Your task to perform on an android device: turn on the 12-hour format for clock Image 0: 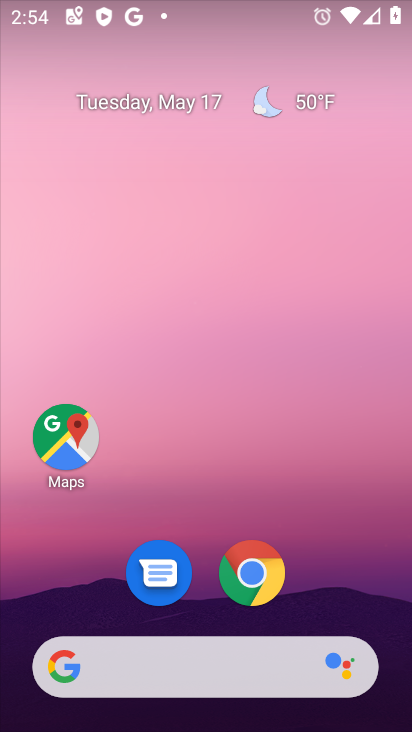
Step 0: drag from (309, 576) to (325, 231)
Your task to perform on an android device: turn on the 12-hour format for clock Image 1: 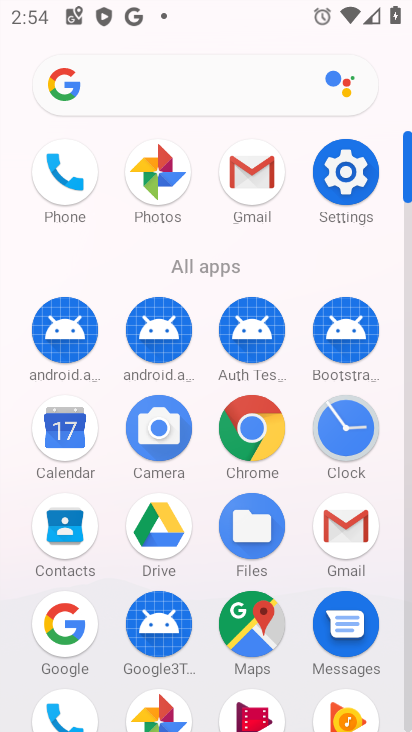
Step 1: click (338, 426)
Your task to perform on an android device: turn on the 12-hour format for clock Image 2: 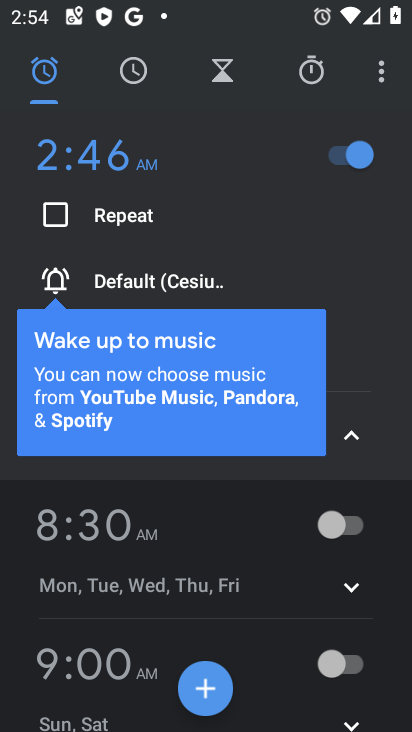
Step 2: click (387, 76)
Your task to perform on an android device: turn on the 12-hour format for clock Image 3: 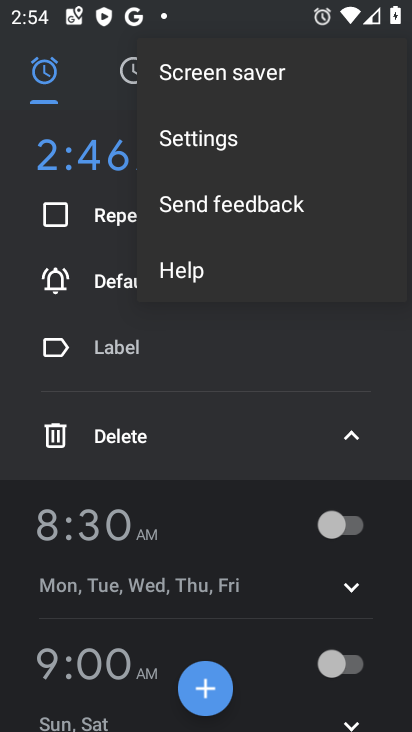
Step 3: click (219, 159)
Your task to perform on an android device: turn on the 12-hour format for clock Image 4: 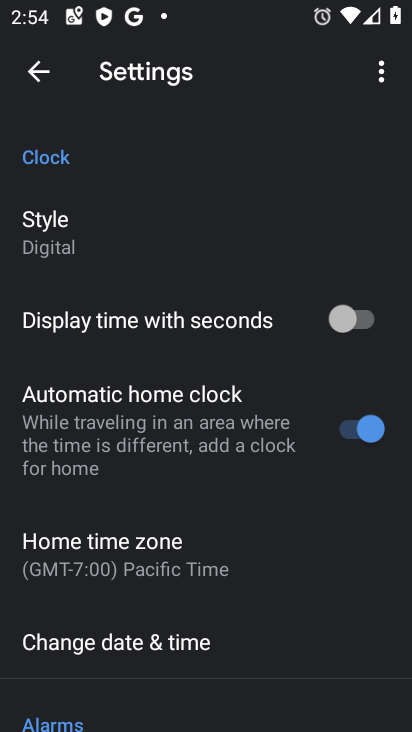
Step 4: click (137, 646)
Your task to perform on an android device: turn on the 12-hour format for clock Image 5: 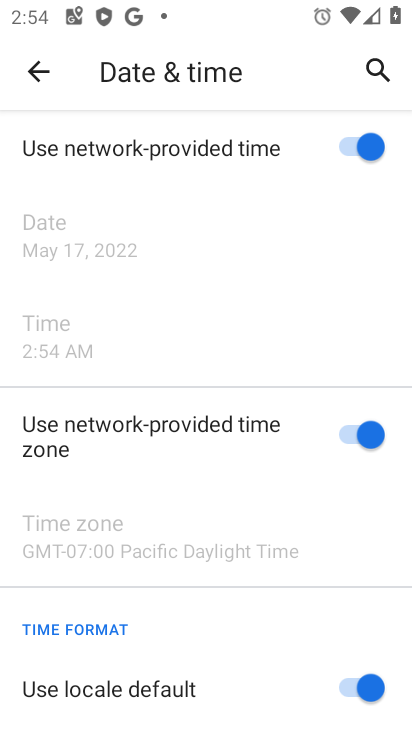
Step 5: task complete